Your task to perform on an android device: Look up the best rated headphones on Walmart. Image 0: 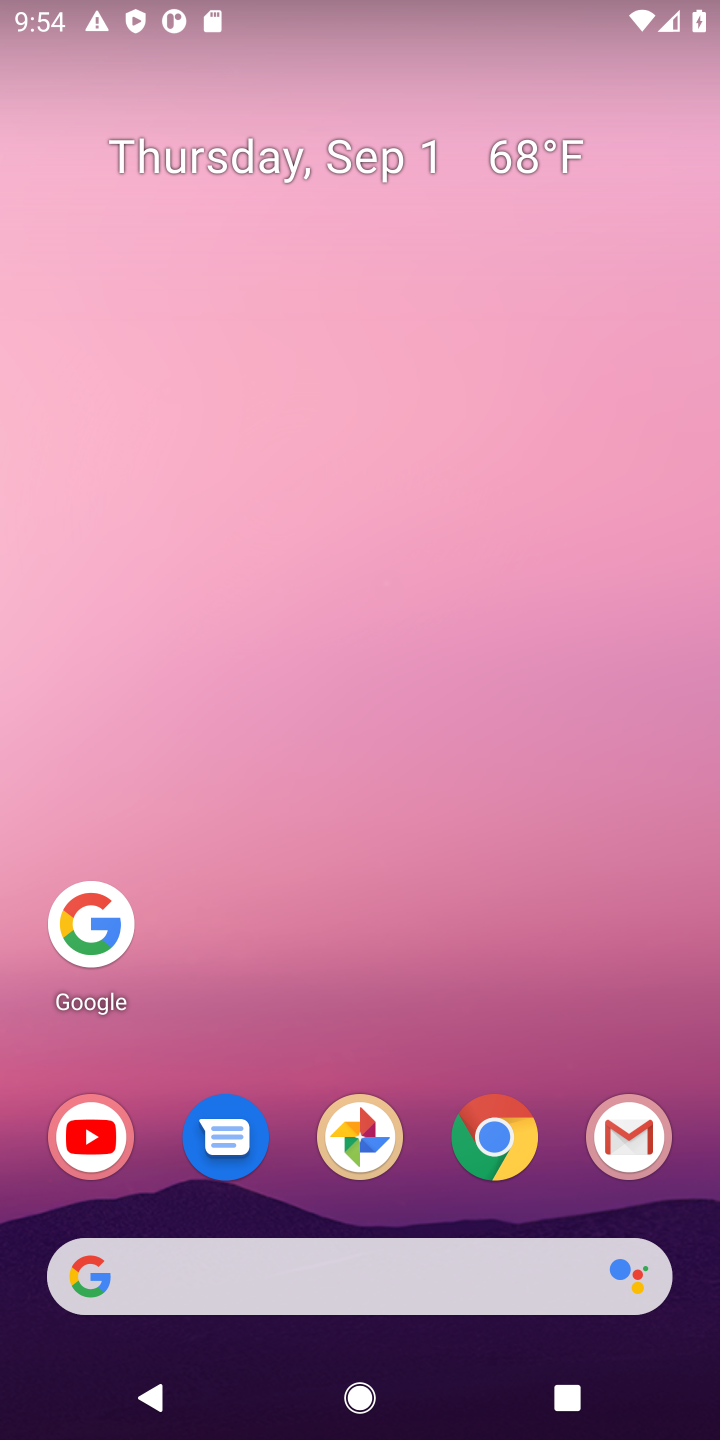
Step 0: click (91, 935)
Your task to perform on an android device: Look up the best rated headphones on Walmart. Image 1: 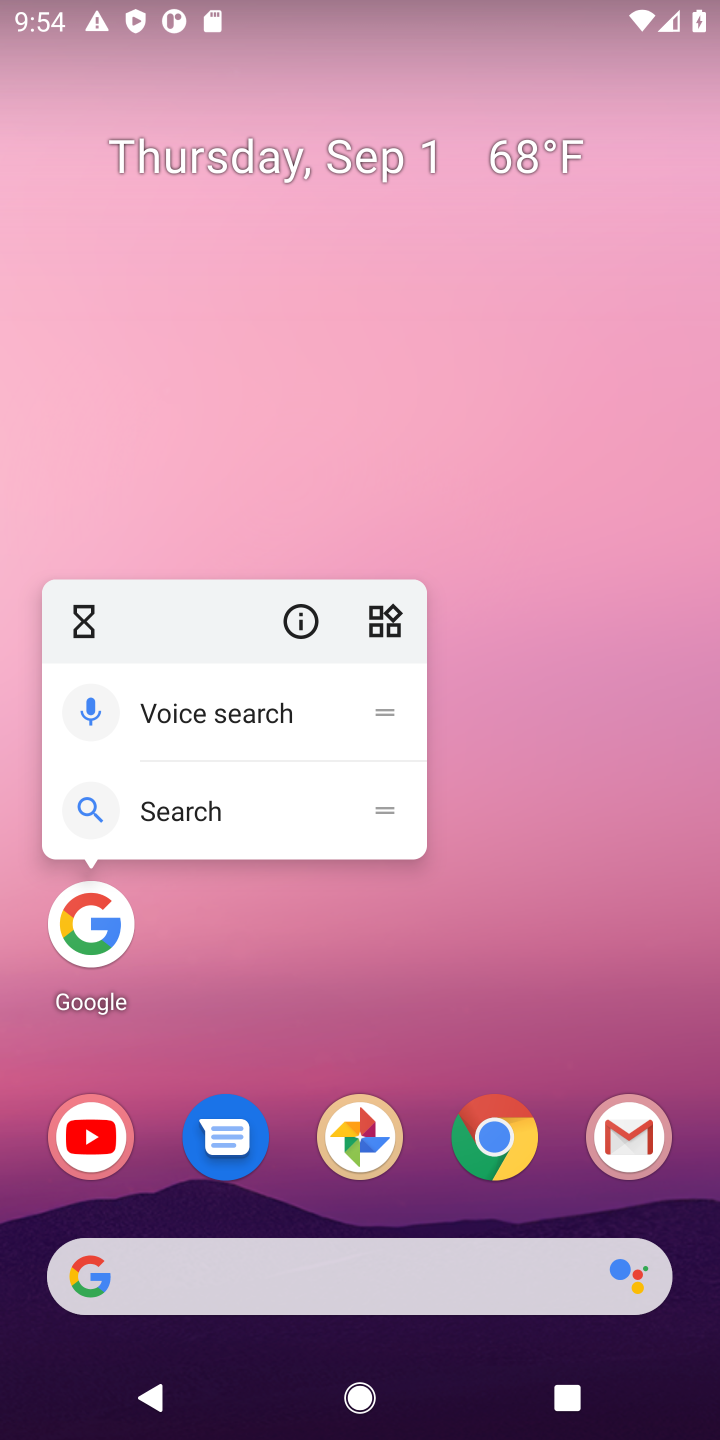
Step 1: click (89, 927)
Your task to perform on an android device: Look up the best rated headphones on Walmart. Image 2: 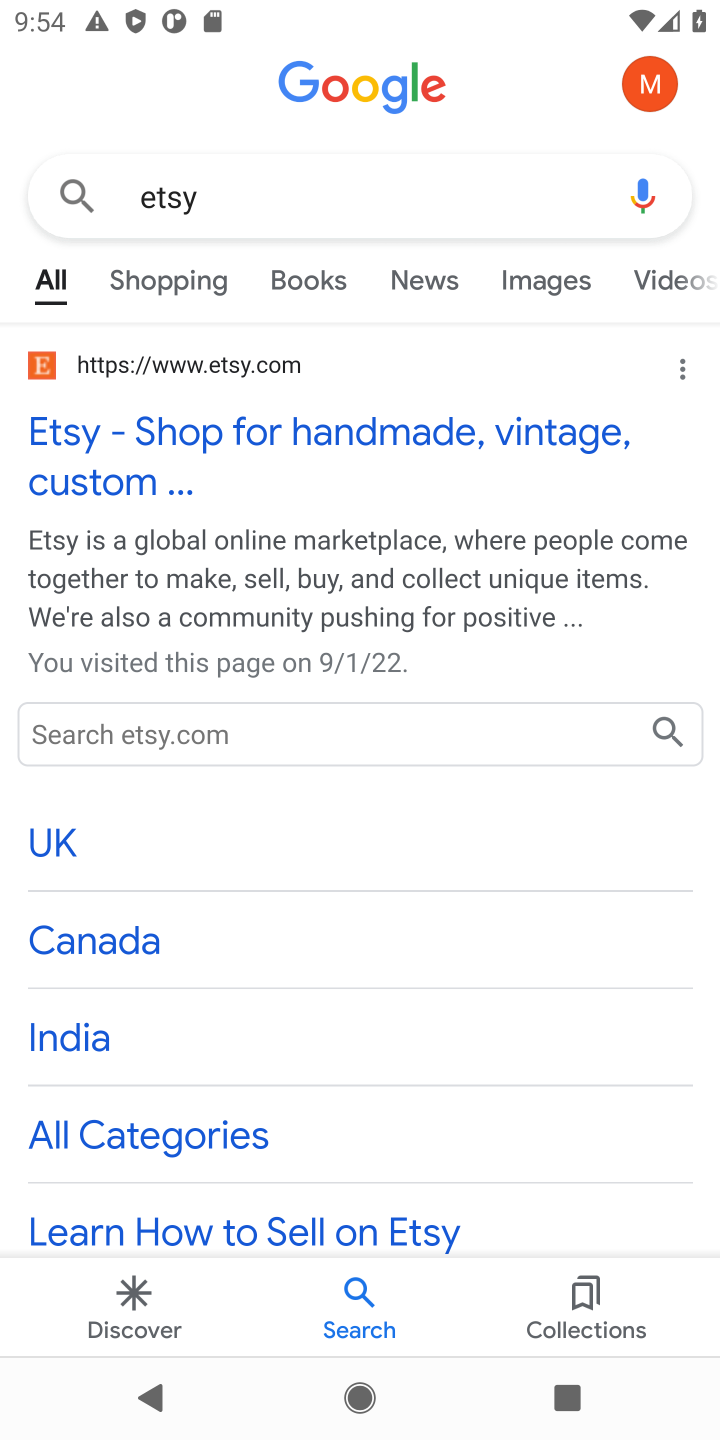
Step 2: click (297, 185)
Your task to perform on an android device: Look up the best rated headphones on Walmart. Image 3: 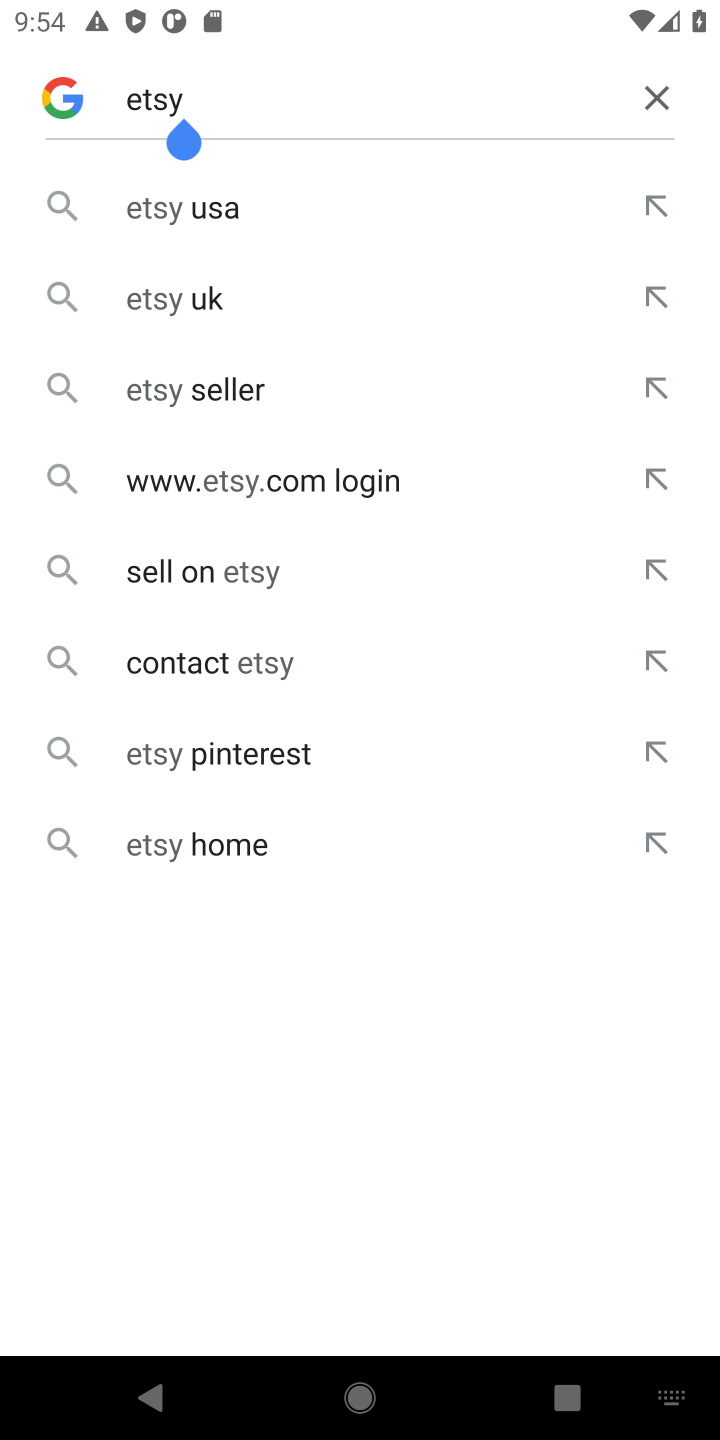
Step 3: click (658, 100)
Your task to perform on an android device: Look up the best rated headphones on Walmart. Image 4: 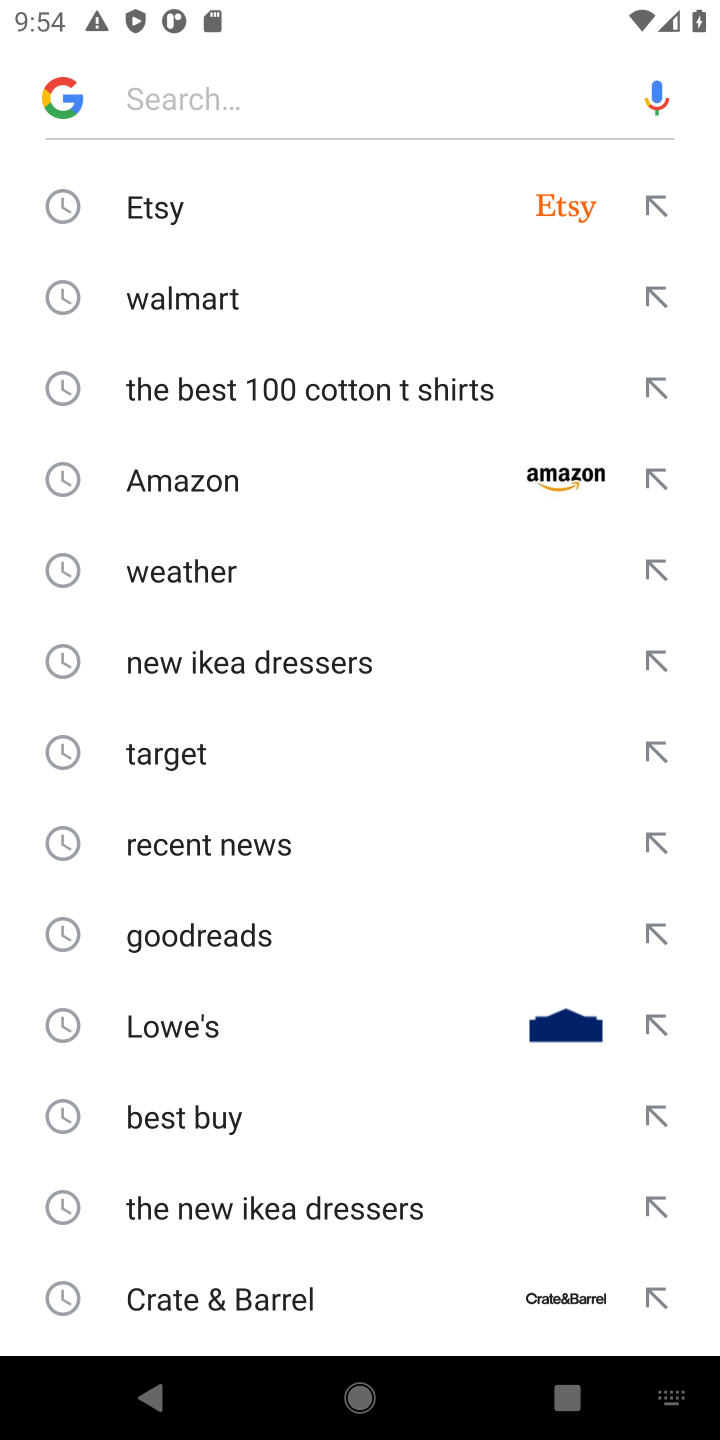
Step 4: click (166, 291)
Your task to perform on an android device: Look up the best rated headphones on Walmart. Image 5: 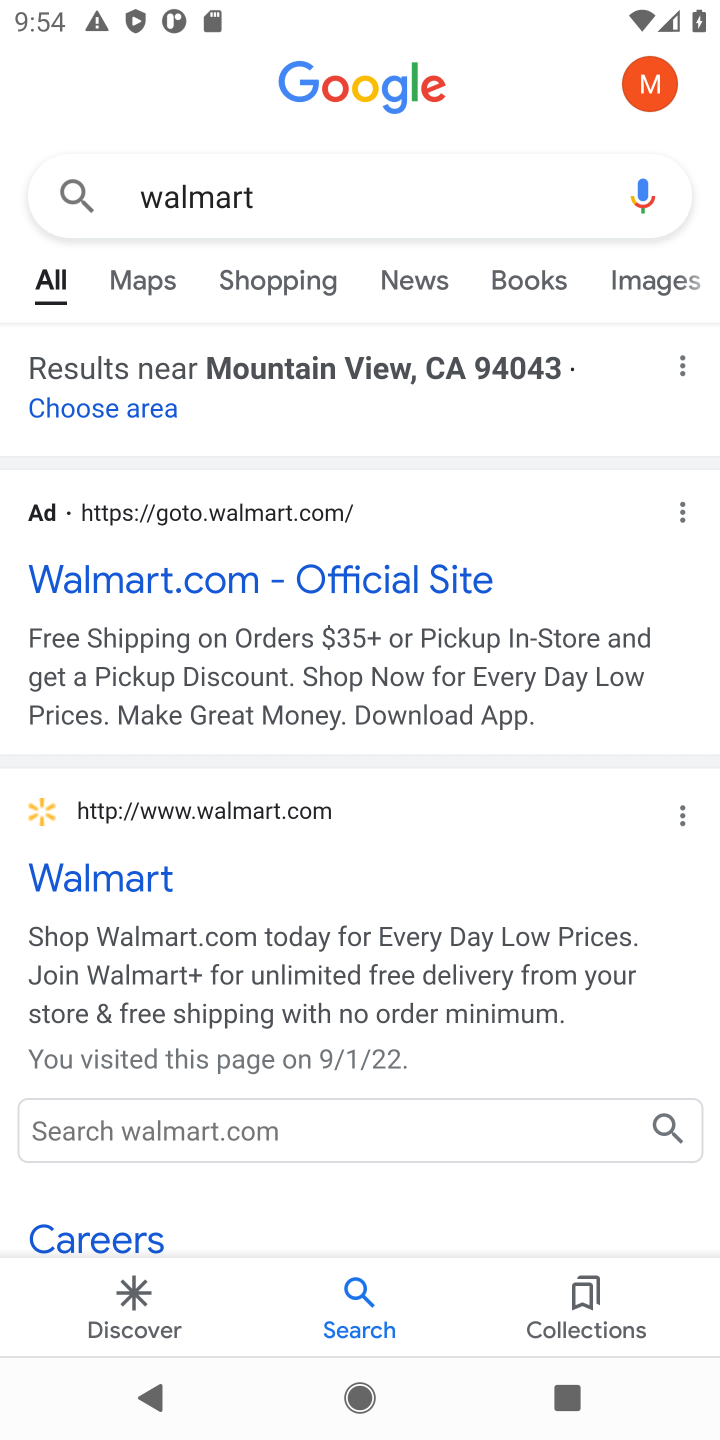
Step 5: click (125, 881)
Your task to perform on an android device: Look up the best rated headphones on Walmart. Image 6: 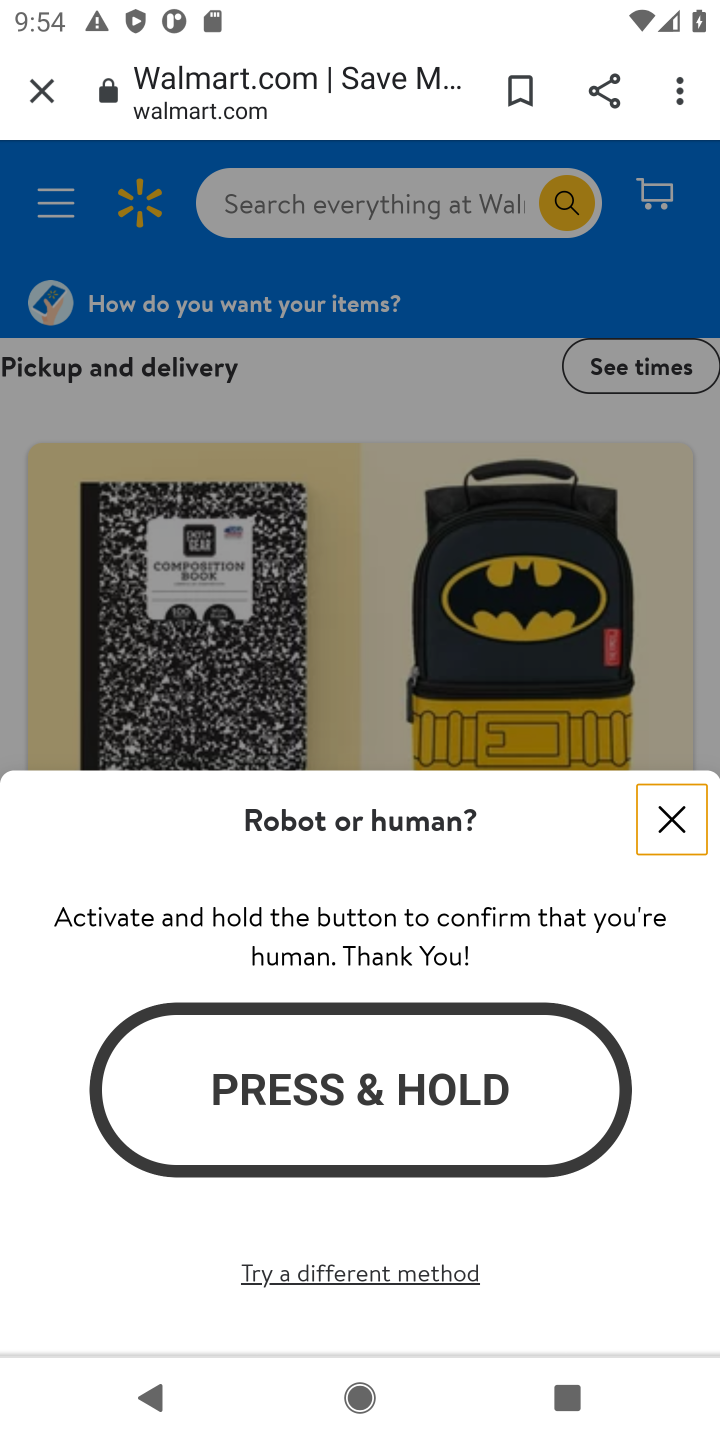
Step 6: click (681, 822)
Your task to perform on an android device: Look up the best rated headphones on Walmart. Image 7: 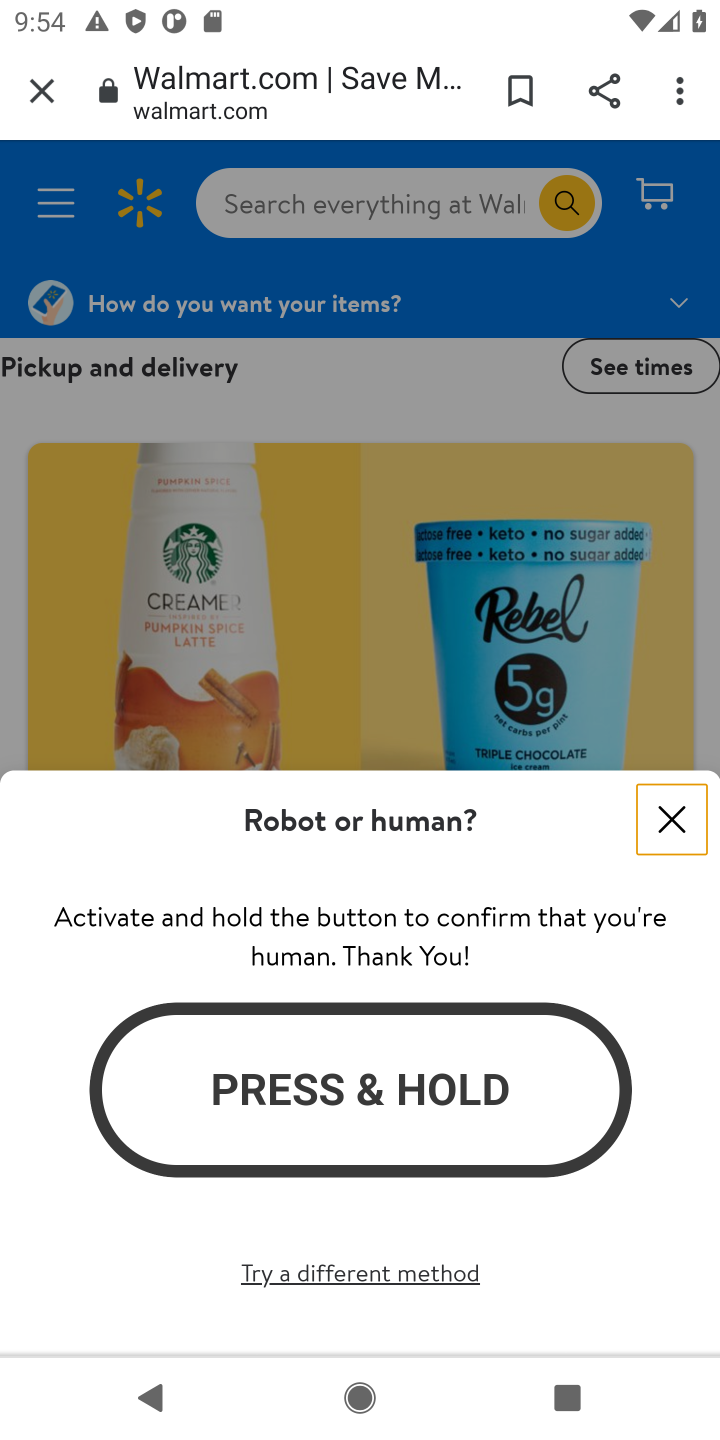
Step 7: click (666, 805)
Your task to perform on an android device: Look up the best rated headphones on Walmart. Image 8: 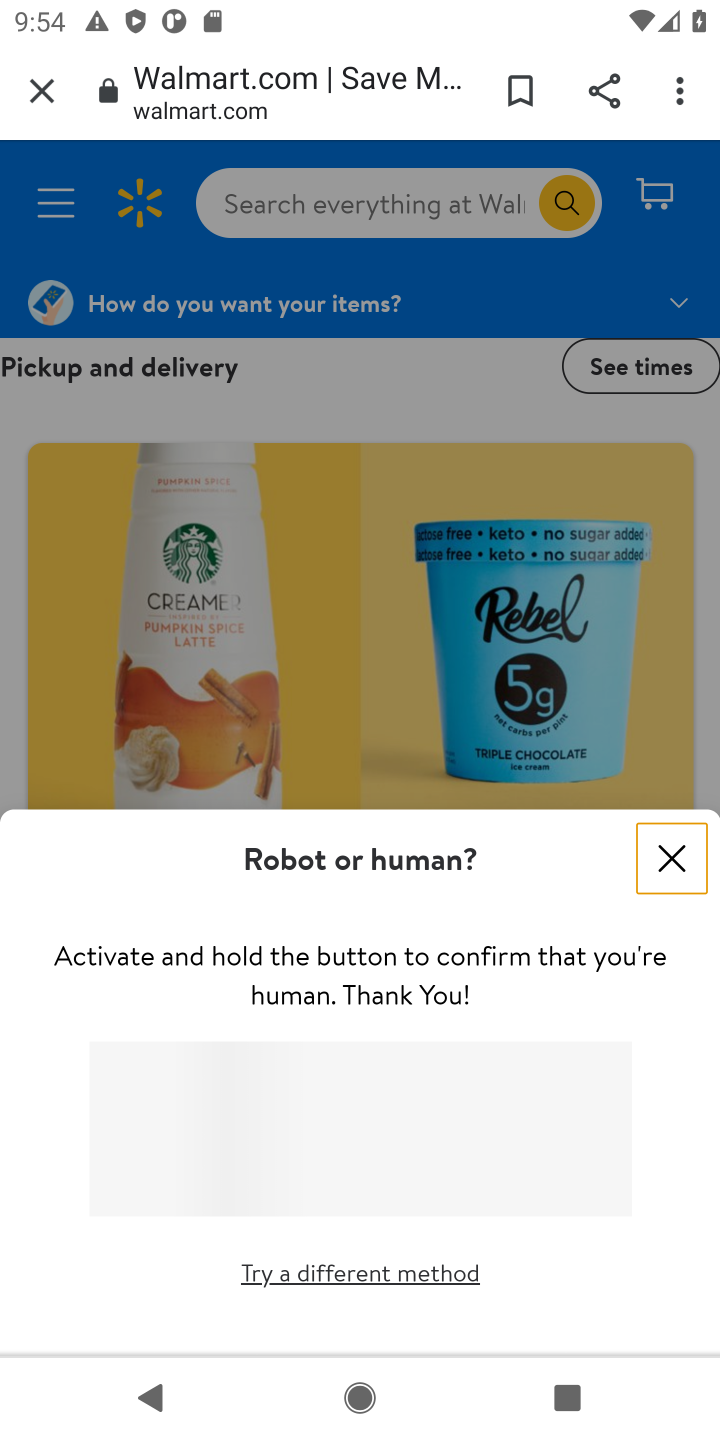
Step 8: click (325, 197)
Your task to perform on an android device: Look up the best rated headphones on Walmart. Image 9: 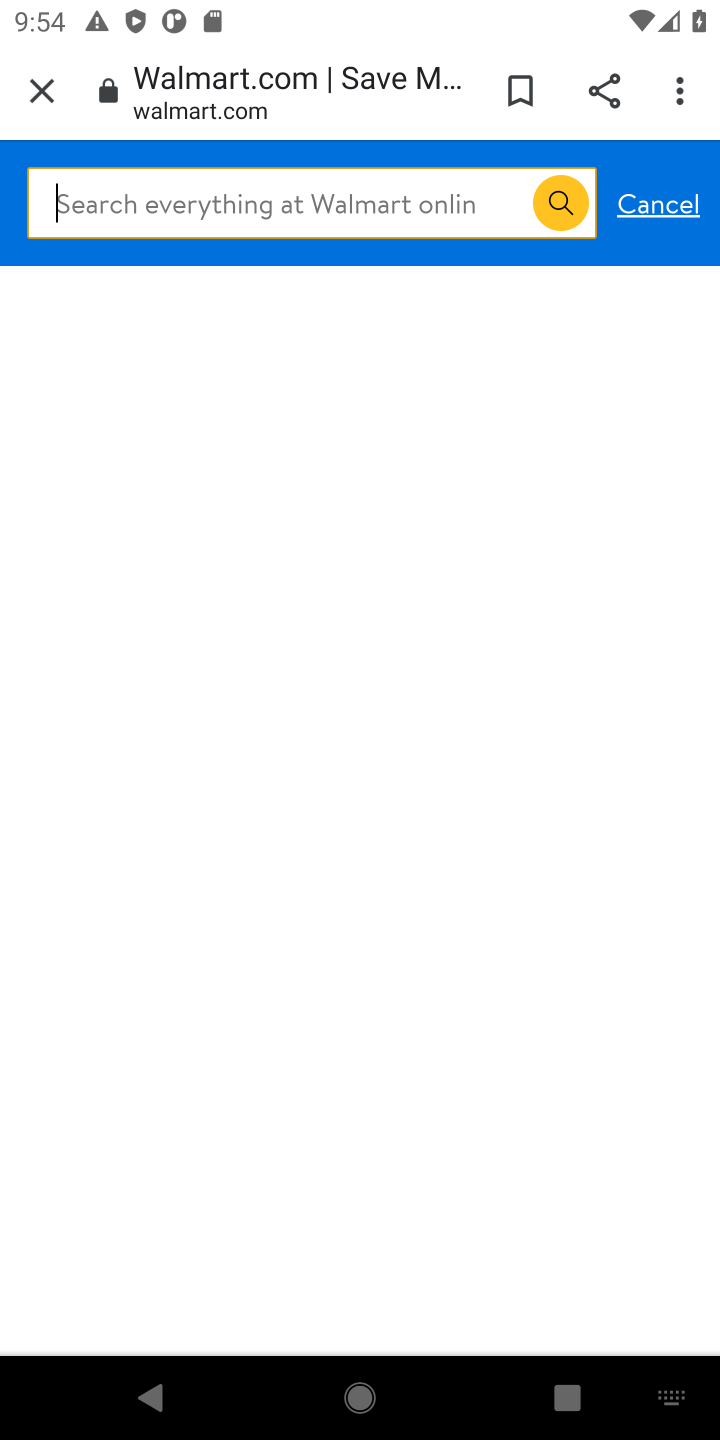
Step 9: type "best rated headphones "
Your task to perform on an android device: Look up the best rated headphones on Walmart. Image 10: 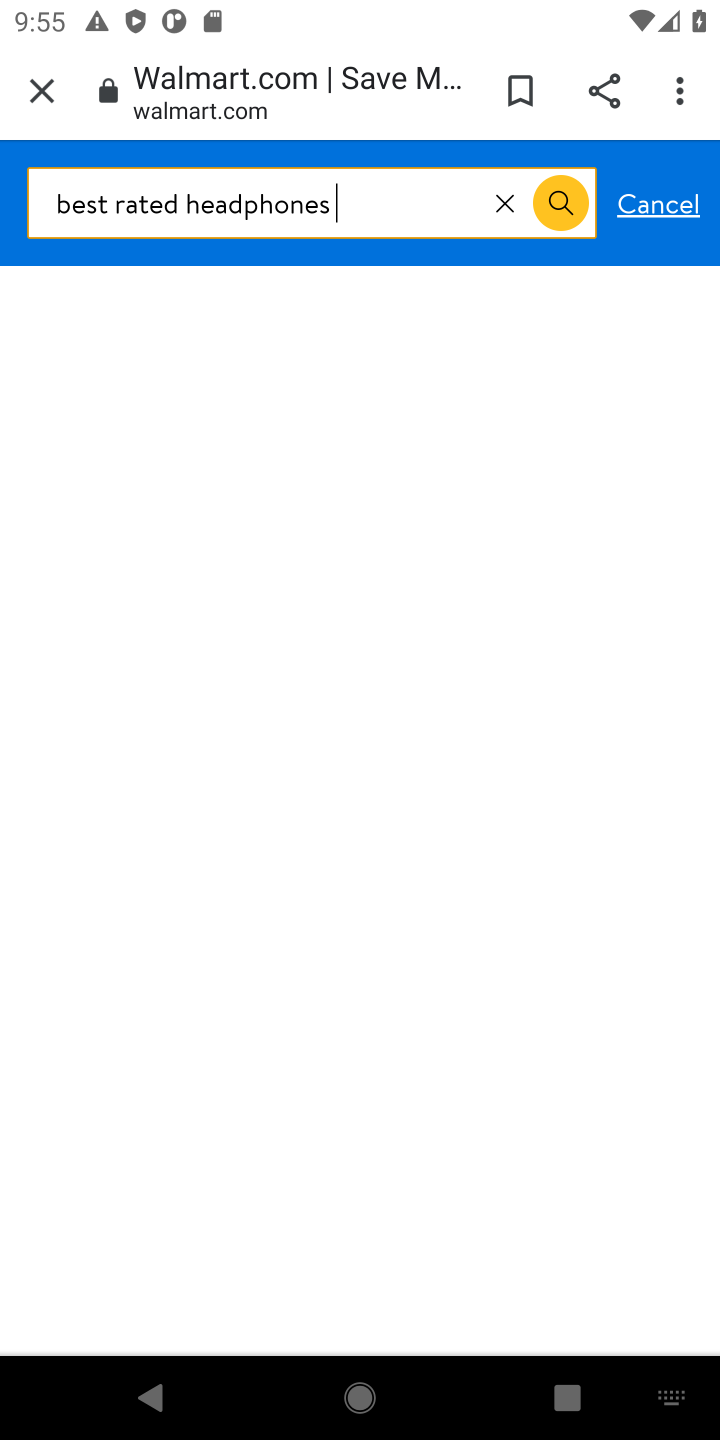
Step 10: click (562, 200)
Your task to perform on an android device: Look up the best rated headphones on Walmart. Image 11: 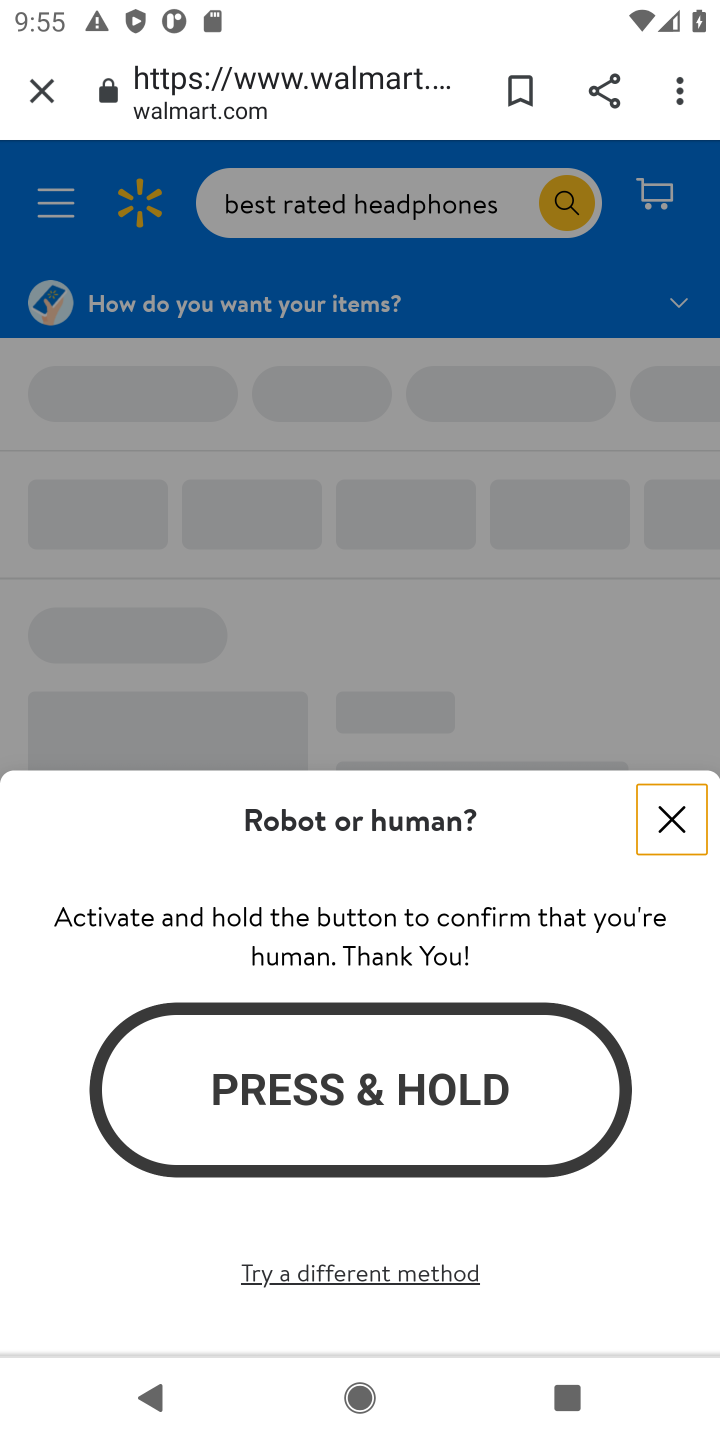
Step 11: click (667, 822)
Your task to perform on an android device: Look up the best rated headphones on Walmart. Image 12: 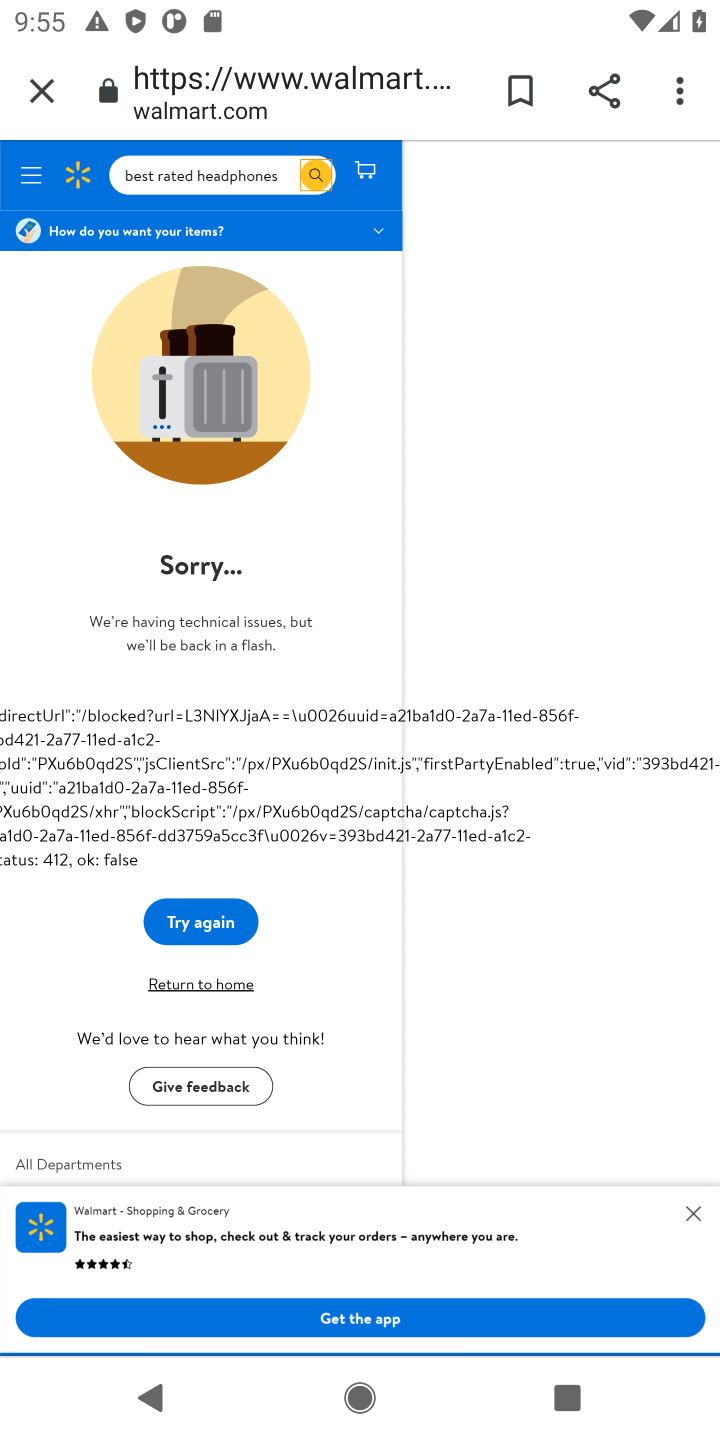
Step 12: task complete